Your task to perform on an android device: change notifications settings Image 0: 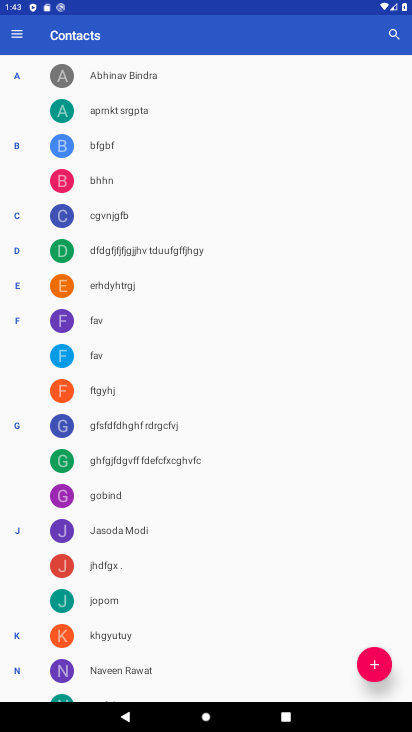
Step 0: press home button
Your task to perform on an android device: change notifications settings Image 1: 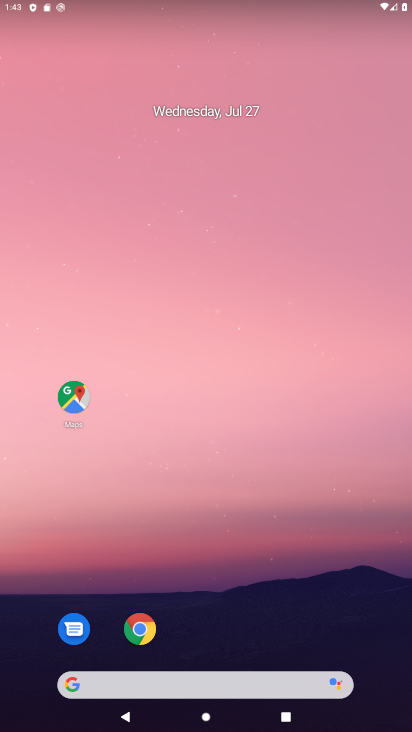
Step 1: drag from (258, 610) to (172, 28)
Your task to perform on an android device: change notifications settings Image 2: 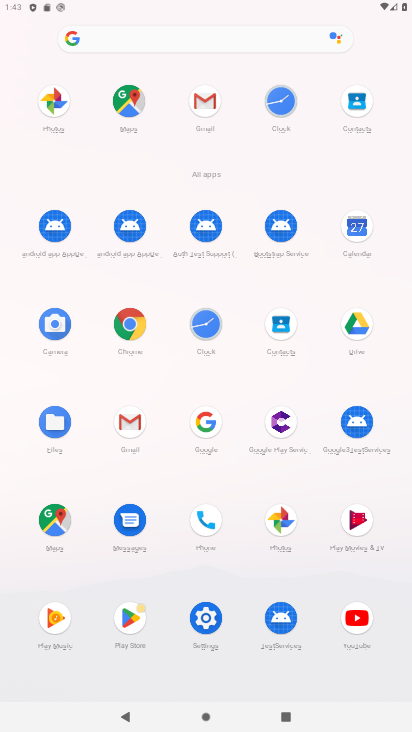
Step 2: click (207, 615)
Your task to perform on an android device: change notifications settings Image 3: 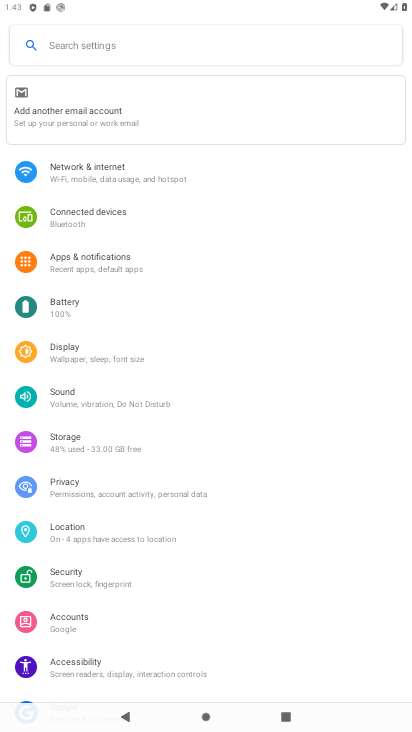
Step 3: click (130, 257)
Your task to perform on an android device: change notifications settings Image 4: 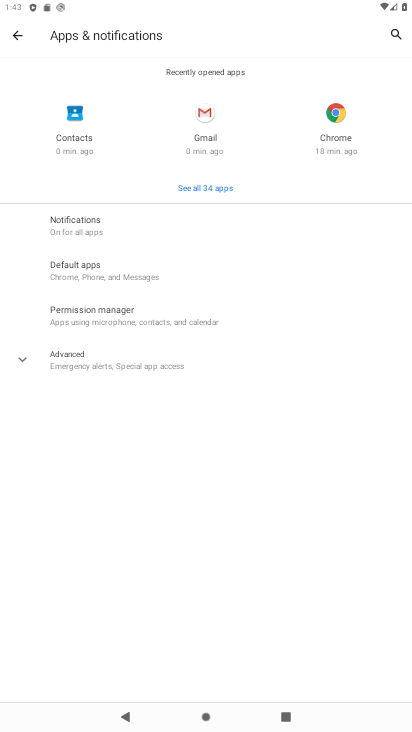
Step 4: click (172, 221)
Your task to perform on an android device: change notifications settings Image 5: 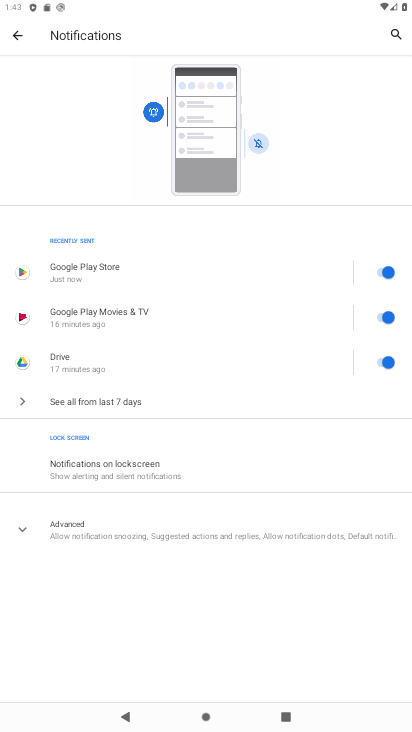
Step 5: click (152, 400)
Your task to perform on an android device: change notifications settings Image 6: 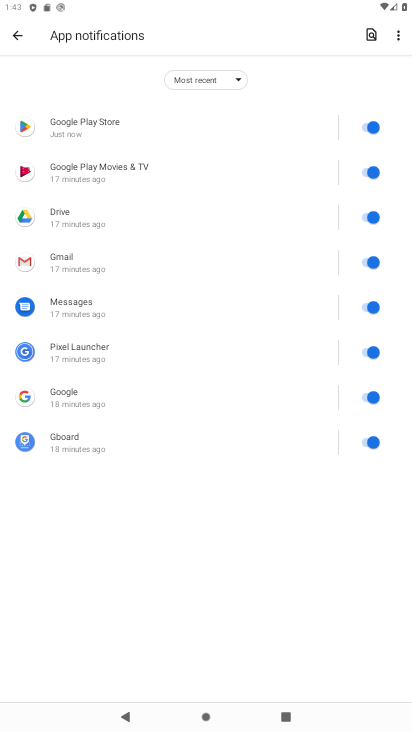
Step 6: click (373, 133)
Your task to perform on an android device: change notifications settings Image 7: 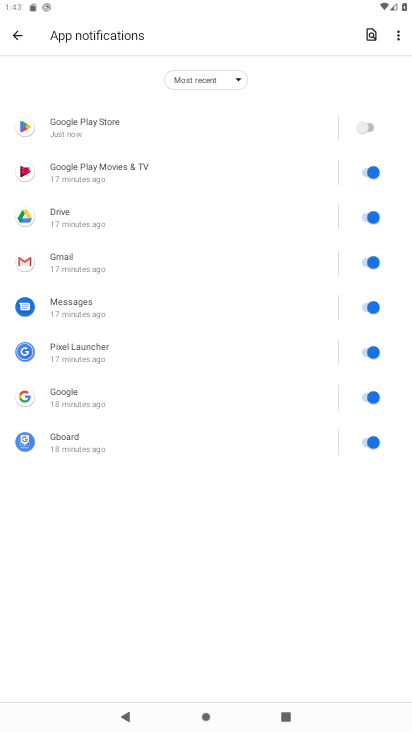
Step 7: click (373, 173)
Your task to perform on an android device: change notifications settings Image 8: 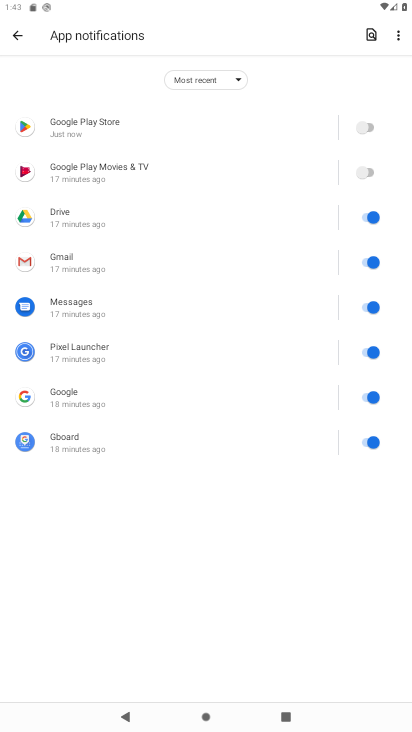
Step 8: click (380, 213)
Your task to perform on an android device: change notifications settings Image 9: 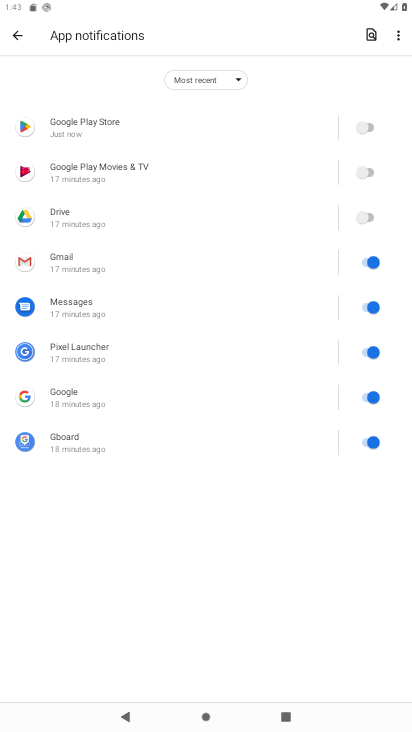
Step 9: click (374, 262)
Your task to perform on an android device: change notifications settings Image 10: 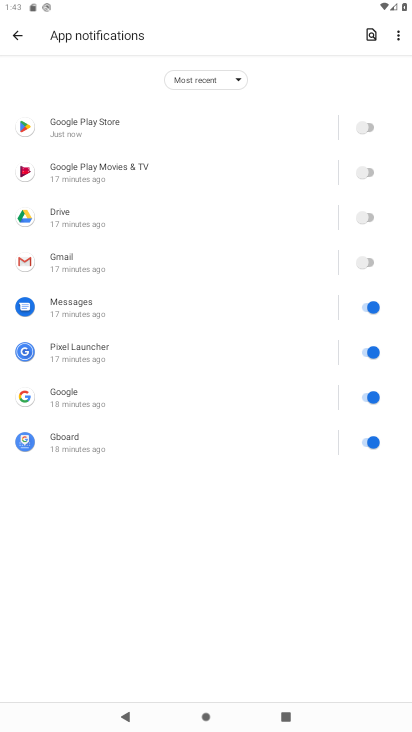
Step 10: click (371, 309)
Your task to perform on an android device: change notifications settings Image 11: 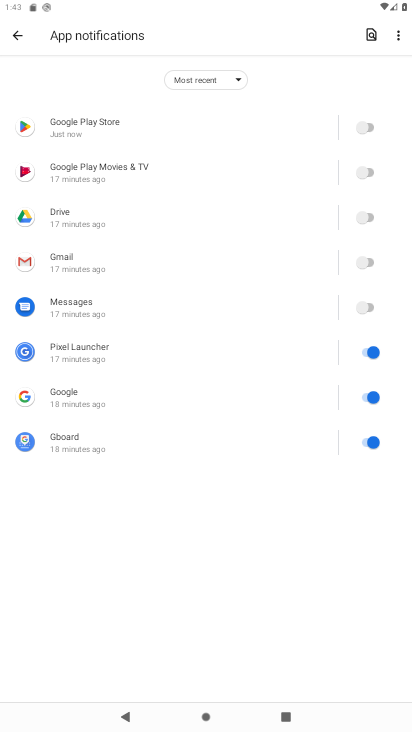
Step 11: click (371, 347)
Your task to perform on an android device: change notifications settings Image 12: 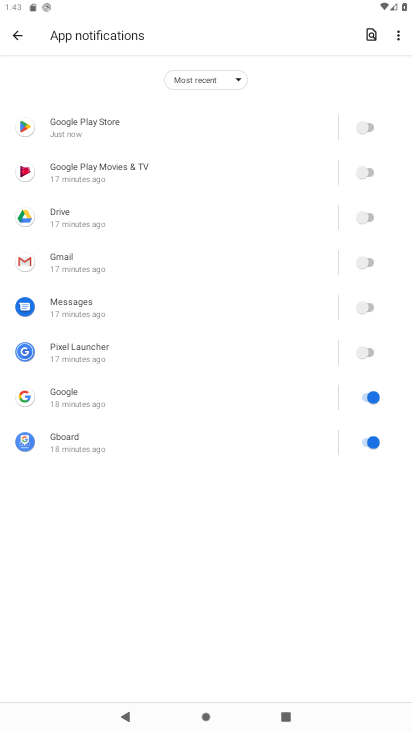
Step 12: click (367, 395)
Your task to perform on an android device: change notifications settings Image 13: 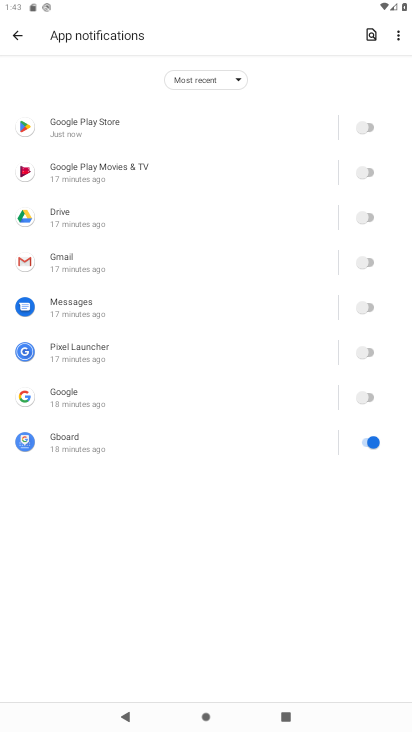
Step 13: click (368, 436)
Your task to perform on an android device: change notifications settings Image 14: 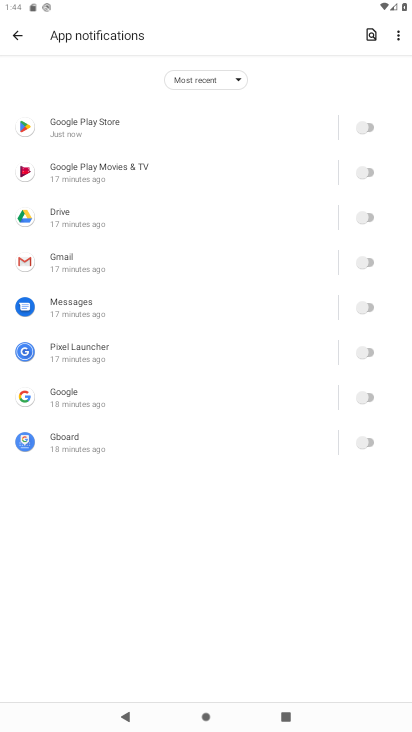
Step 14: click (5, 29)
Your task to perform on an android device: change notifications settings Image 15: 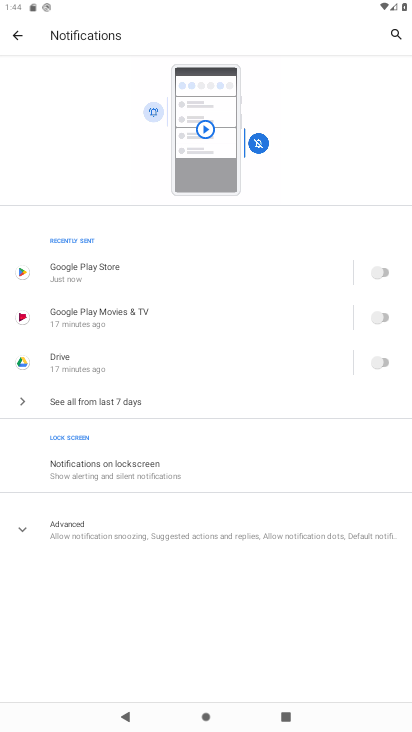
Step 15: click (82, 471)
Your task to perform on an android device: change notifications settings Image 16: 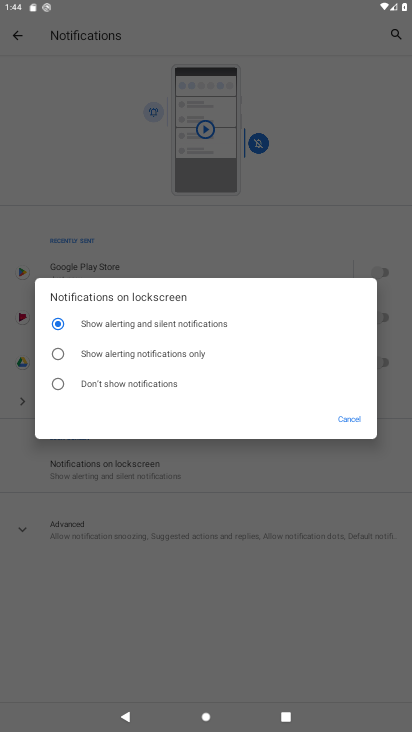
Step 16: click (144, 355)
Your task to perform on an android device: change notifications settings Image 17: 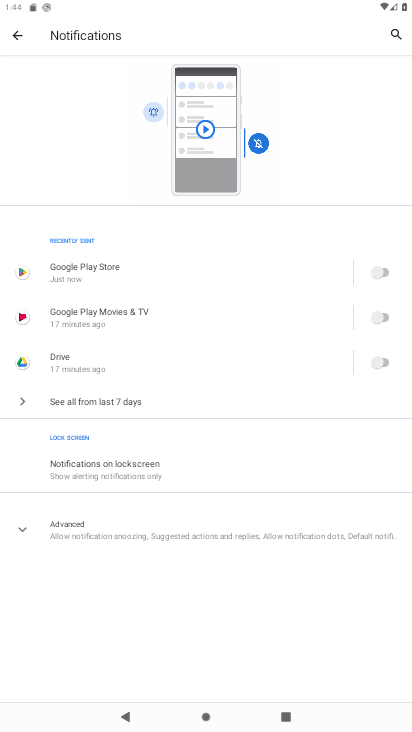
Step 17: click (112, 517)
Your task to perform on an android device: change notifications settings Image 18: 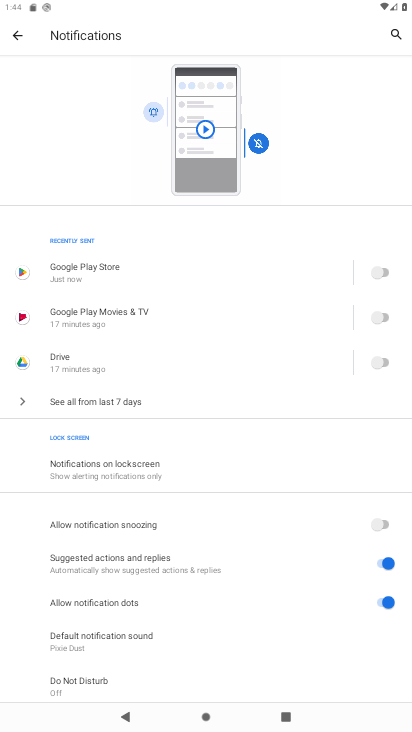
Step 18: click (379, 519)
Your task to perform on an android device: change notifications settings Image 19: 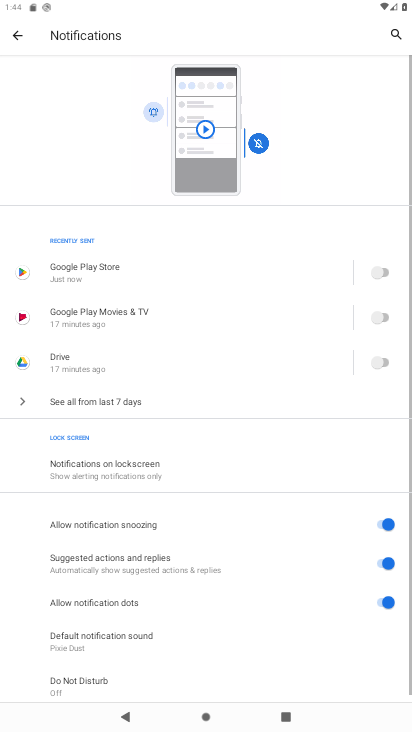
Step 19: click (387, 554)
Your task to perform on an android device: change notifications settings Image 20: 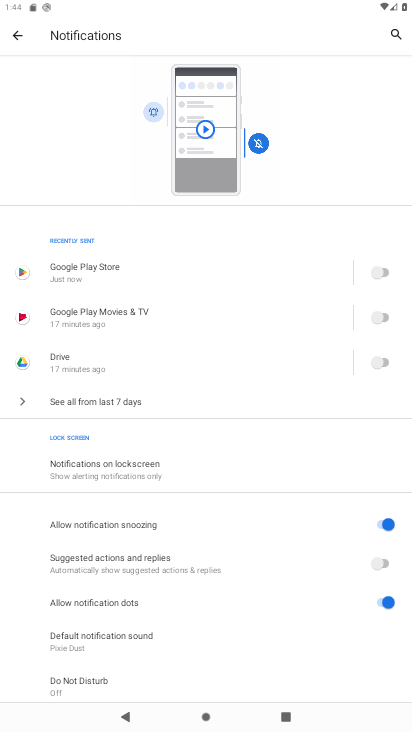
Step 20: click (385, 602)
Your task to perform on an android device: change notifications settings Image 21: 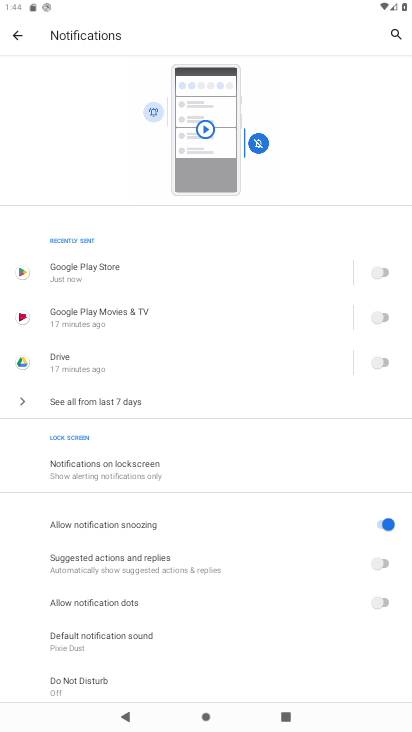
Step 21: task complete